Your task to perform on an android device: Show me popular games on the Play Store Image 0: 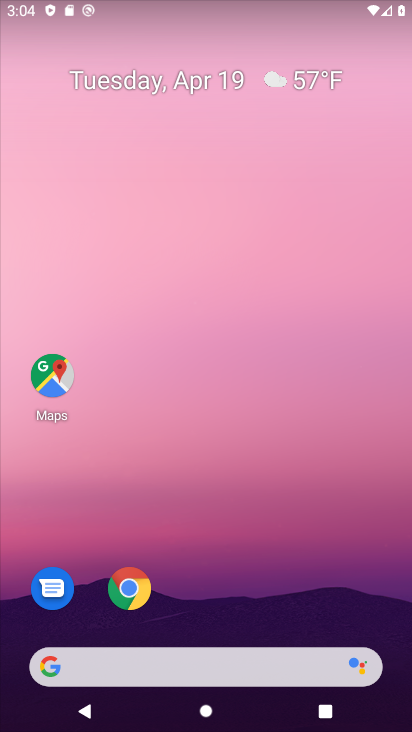
Step 0: drag from (157, 642) to (251, 199)
Your task to perform on an android device: Show me popular games on the Play Store Image 1: 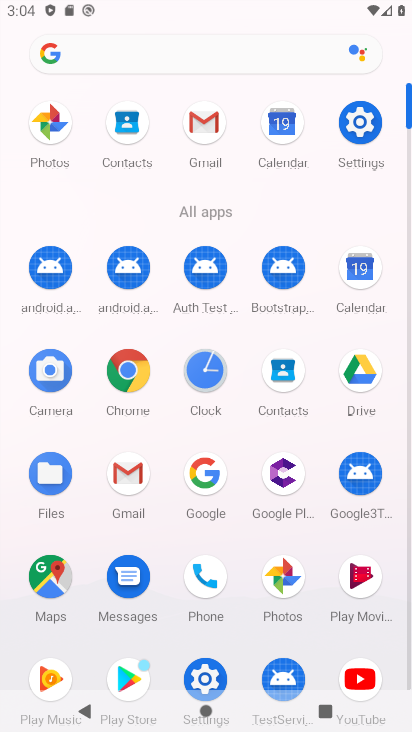
Step 1: drag from (161, 548) to (278, 251)
Your task to perform on an android device: Show me popular games on the Play Store Image 2: 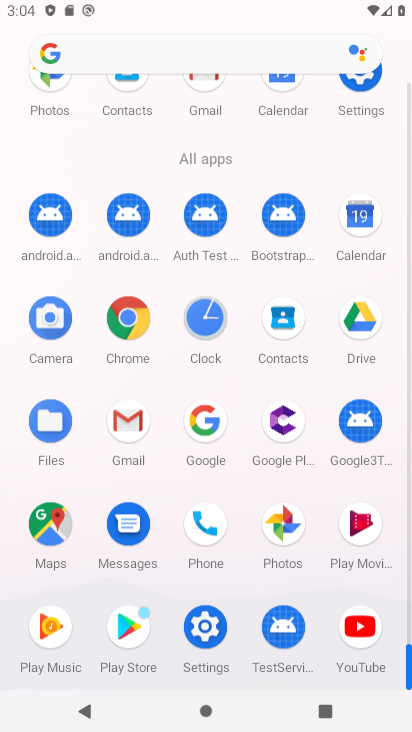
Step 2: drag from (168, 558) to (274, 259)
Your task to perform on an android device: Show me popular games on the Play Store Image 3: 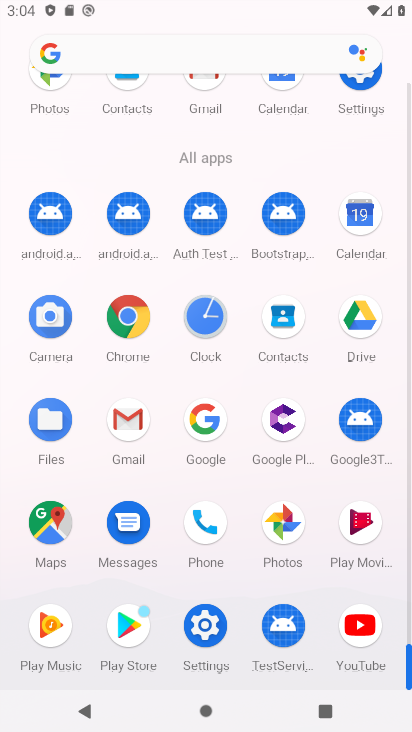
Step 3: click (133, 623)
Your task to perform on an android device: Show me popular games on the Play Store Image 4: 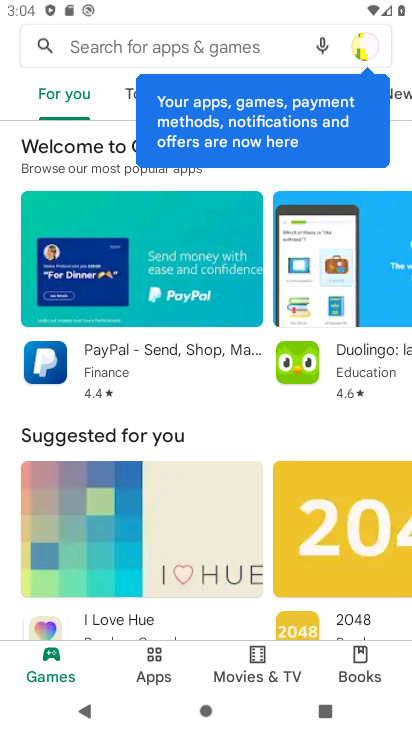
Step 4: drag from (190, 576) to (295, 182)
Your task to perform on an android device: Show me popular games on the Play Store Image 5: 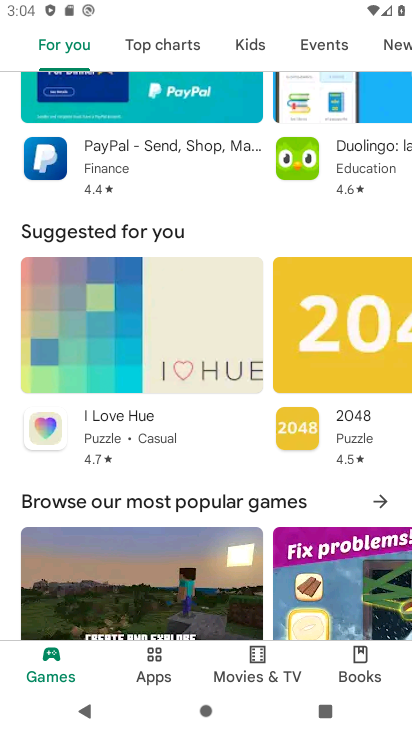
Step 5: drag from (196, 603) to (264, 336)
Your task to perform on an android device: Show me popular games on the Play Store Image 6: 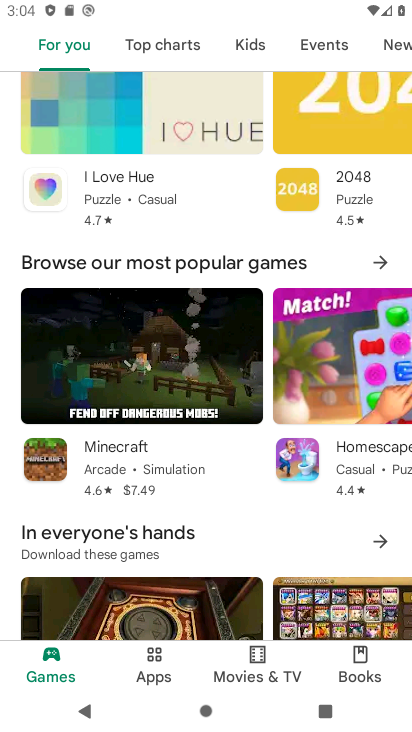
Step 6: click (383, 263)
Your task to perform on an android device: Show me popular games on the Play Store Image 7: 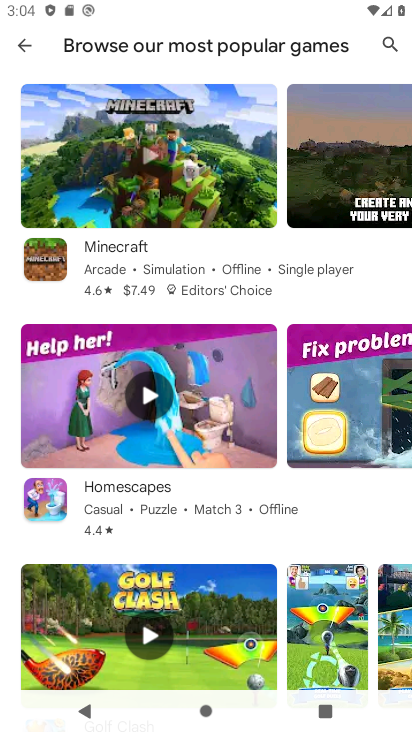
Step 7: task complete